Your task to perform on an android device: Open Youtube and go to "Your channel" Image 0: 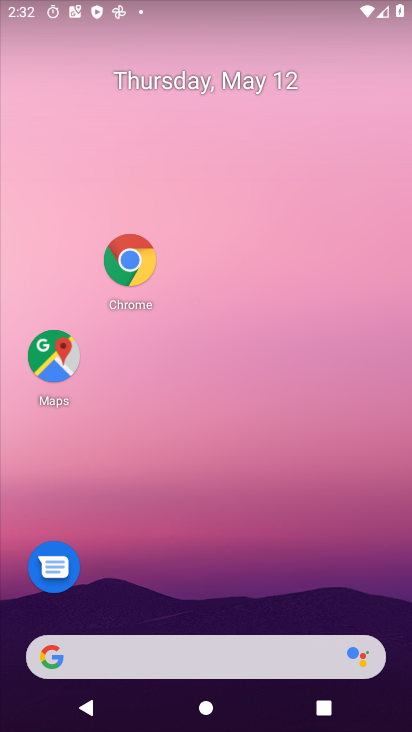
Step 0: click (158, 385)
Your task to perform on an android device: Open Youtube and go to "Your channel" Image 1: 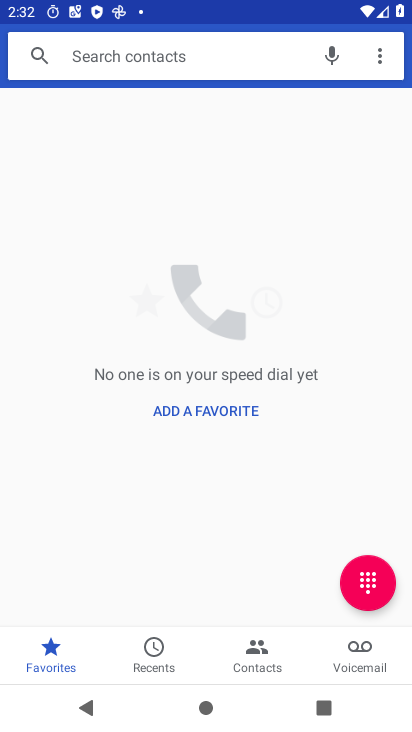
Step 1: press home button
Your task to perform on an android device: Open Youtube and go to "Your channel" Image 2: 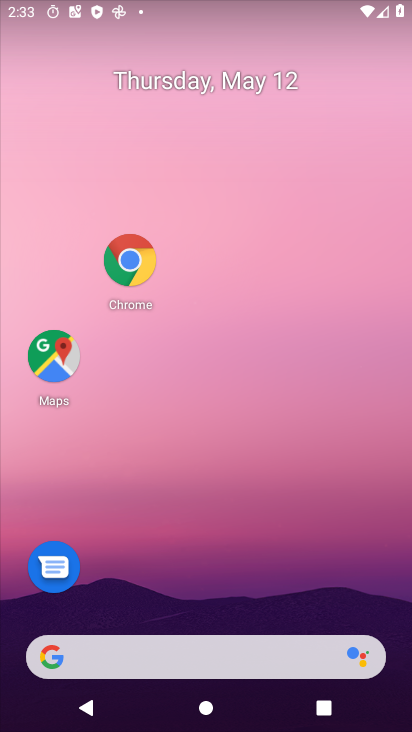
Step 2: drag from (162, 627) to (173, 425)
Your task to perform on an android device: Open Youtube and go to "Your channel" Image 3: 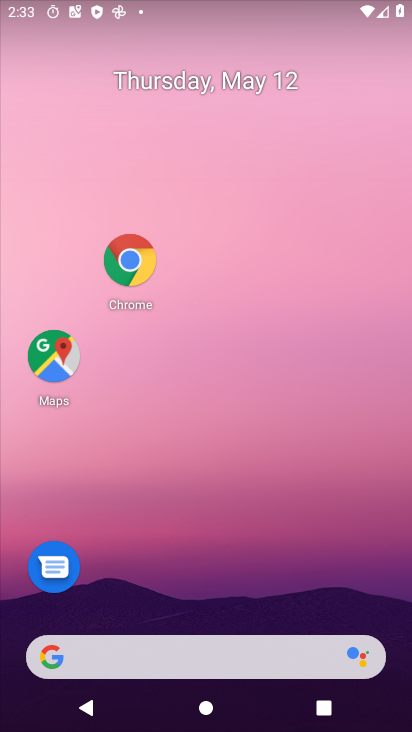
Step 3: drag from (256, 626) to (313, 182)
Your task to perform on an android device: Open Youtube and go to "Your channel" Image 4: 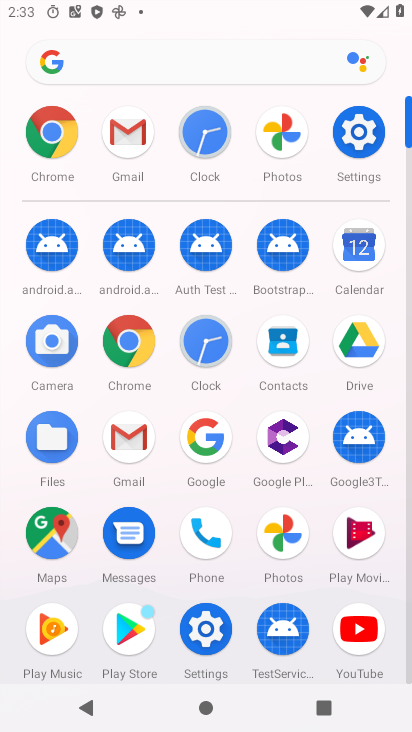
Step 4: click (354, 639)
Your task to perform on an android device: Open Youtube and go to "Your channel" Image 5: 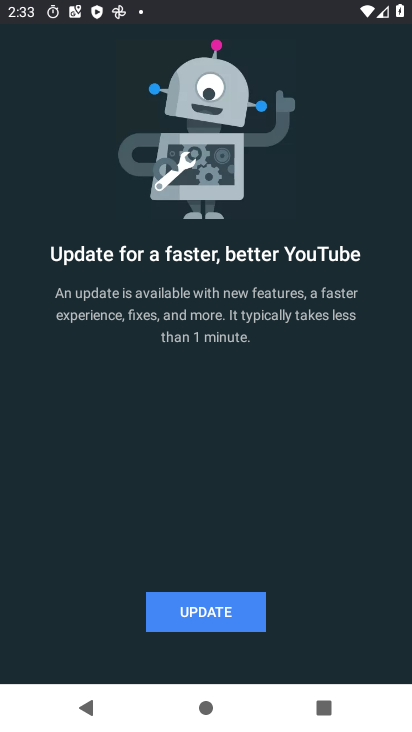
Step 5: click (209, 610)
Your task to perform on an android device: Open Youtube and go to "Your channel" Image 6: 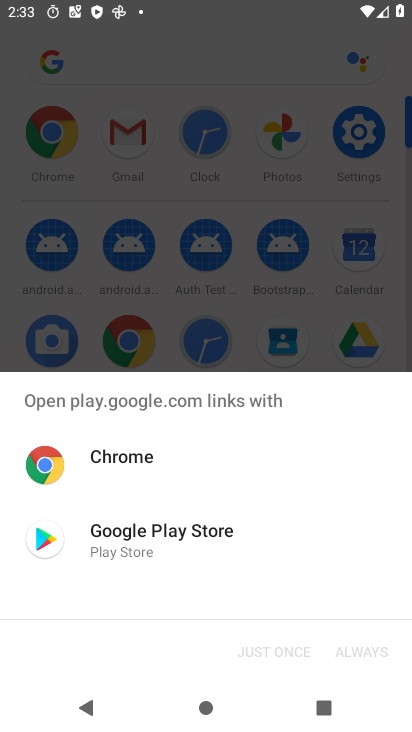
Step 6: click (148, 552)
Your task to perform on an android device: Open Youtube and go to "Your channel" Image 7: 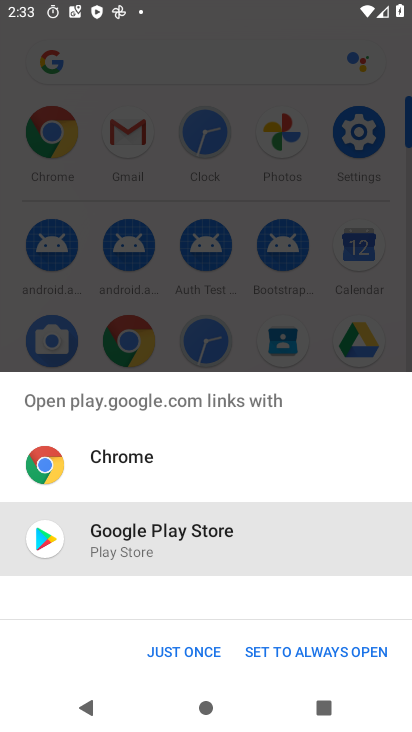
Step 7: click (306, 652)
Your task to perform on an android device: Open Youtube and go to "Your channel" Image 8: 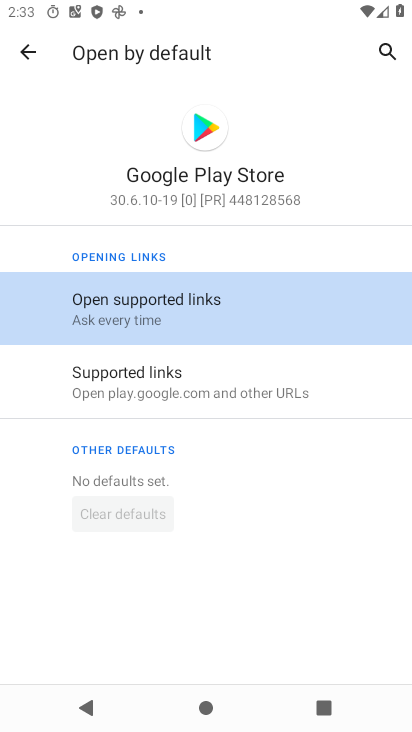
Step 8: click (182, 165)
Your task to perform on an android device: Open Youtube and go to "Your channel" Image 9: 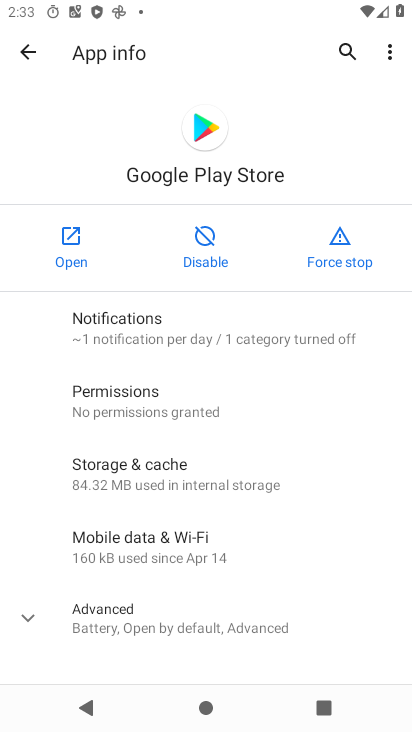
Step 9: click (61, 238)
Your task to perform on an android device: Open Youtube and go to "Your channel" Image 10: 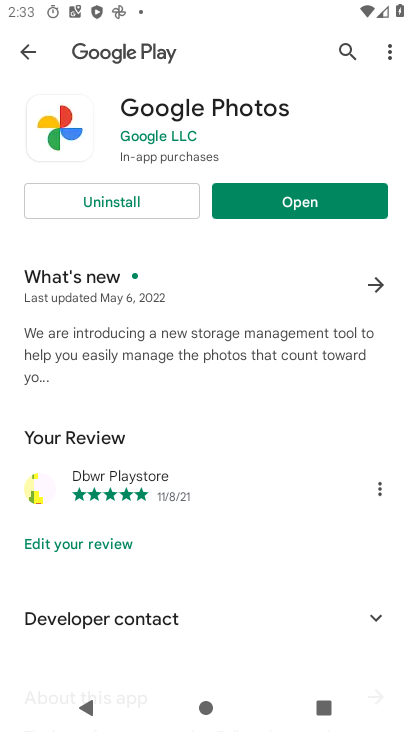
Step 10: click (338, 52)
Your task to perform on an android device: Open Youtube and go to "Your channel" Image 11: 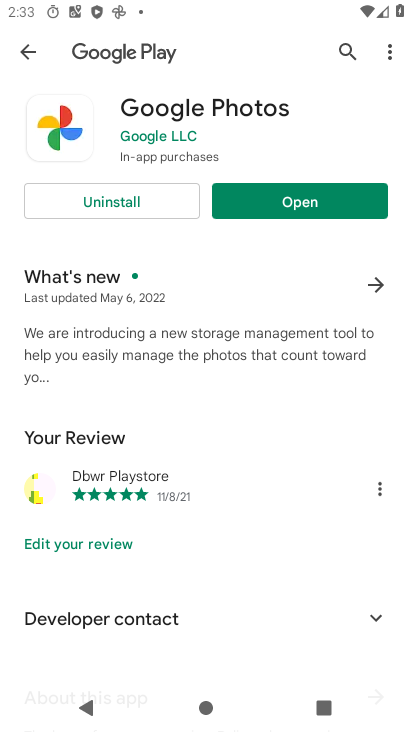
Step 11: click (342, 44)
Your task to perform on an android device: Open Youtube and go to "Your channel" Image 12: 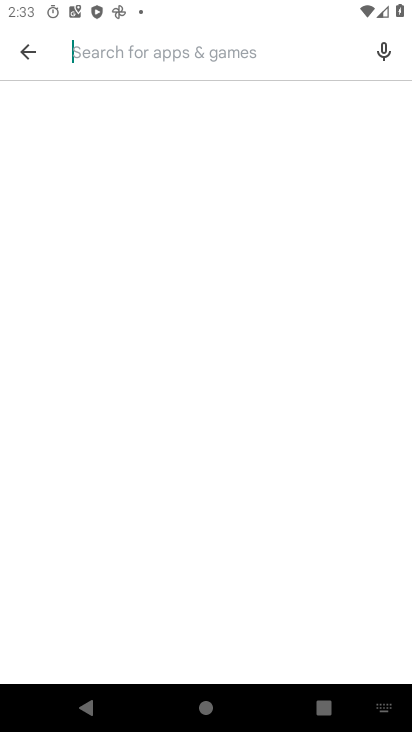
Step 12: click (175, 52)
Your task to perform on an android device: Open Youtube and go to "Your channel" Image 13: 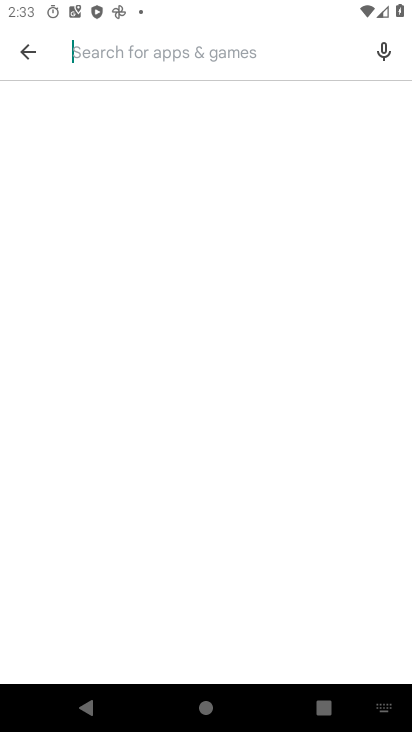
Step 13: type "youtube"
Your task to perform on an android device: Open Youtube and go to "Your channel" Image 14: 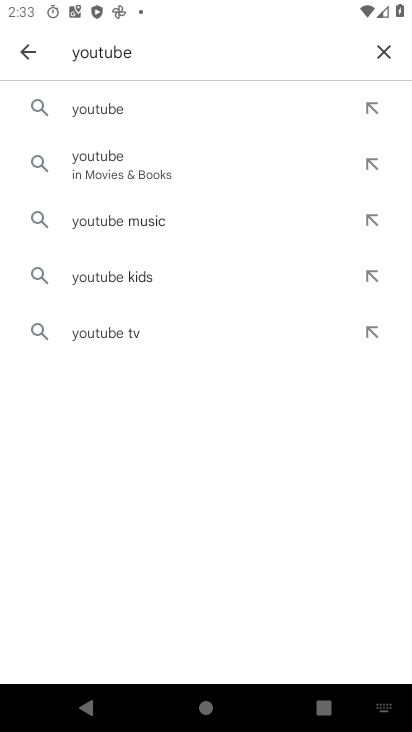
Step 14: click (119, 121)
Your task to perform on an android device: Open Youtube and go to "Your channel" Image 15: 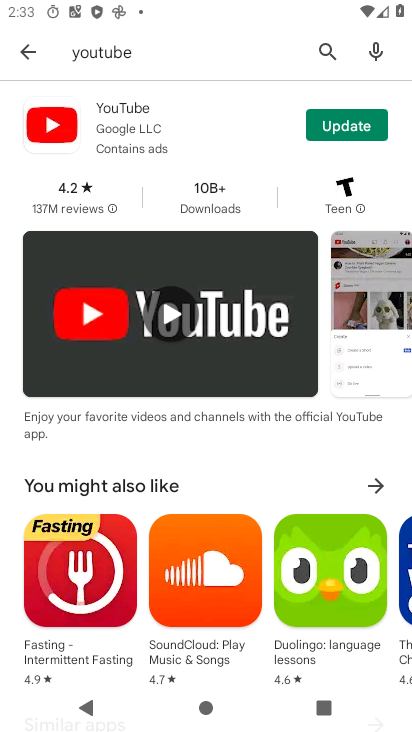
Step 15: click (342, 124)
Your task to perform on an android device: Open Youtube and go to "Your channel" Image 16: 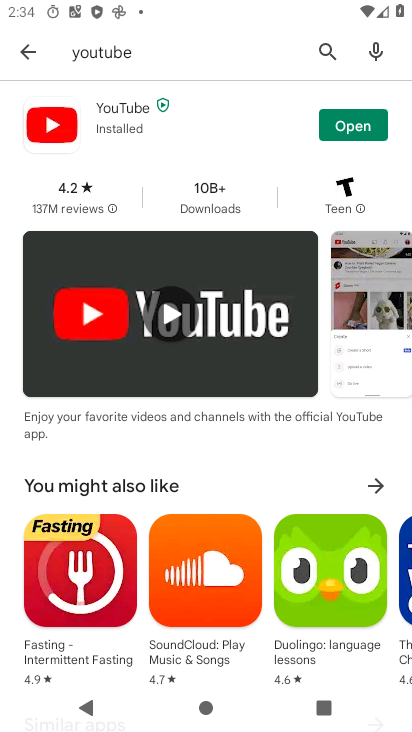
Step 16: click (339, 129)
Your task to perform on an android device: Open Youtube and go to "Your channel" Image 17: 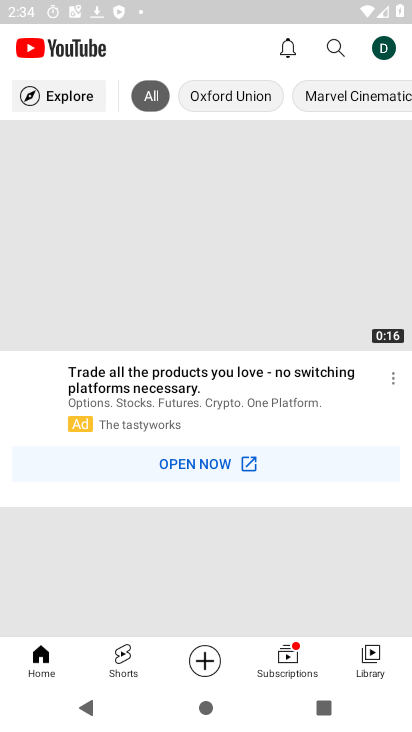
Step 17: click (391, 47)
Your task to perform on an android device: Open Youtube and go to "Your channel" Image 18: 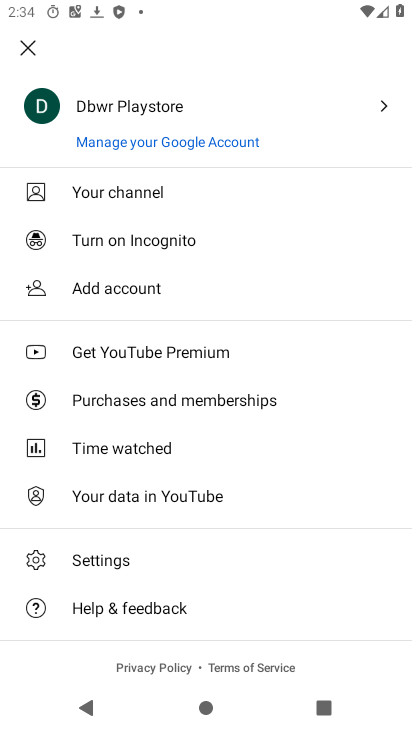
Step 18: click (64, 188)
Your task to perform on an android device: Open Youtube and go to "Your channel" Image 19: 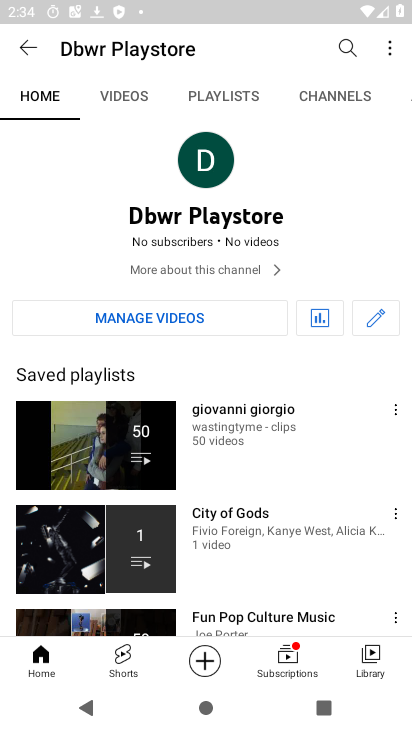
Step 19: task complete